Your task to perform on an android device: toggle sleep mode Image 0: 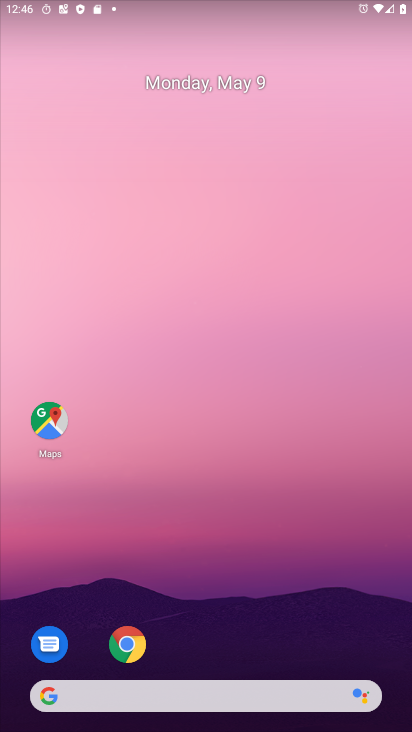
Step 0: drag from (339, 602) to (230, 161)
Your task to perform on an android device: toggle sleep mode Image 1: 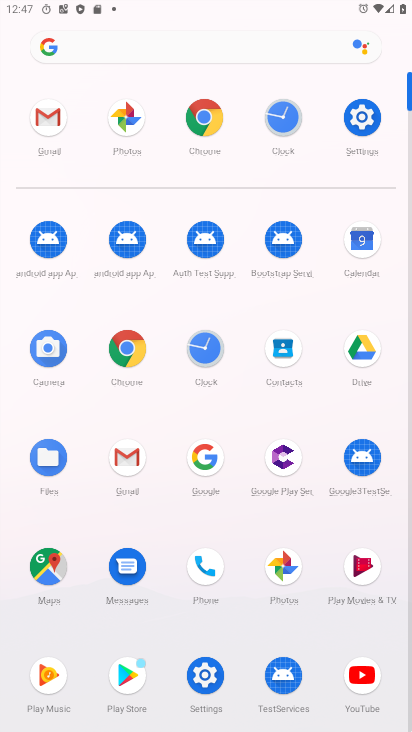
Step 1: click (354, 124)
Your task to perform on an android device: toggle sleep mode Image 2: 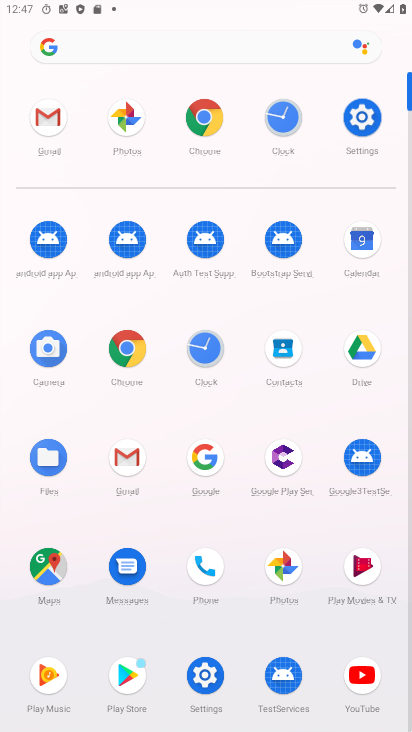
Step 2: click (355, 124)
Your task to perform on an android device: toggle sleep mode Image 3: 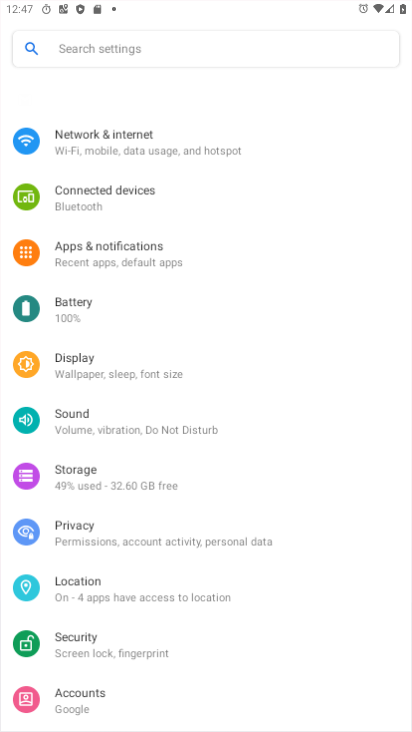
Step 3: click (357, 123)
Your task to perform on an android device: toggle sleep mode Image 4: 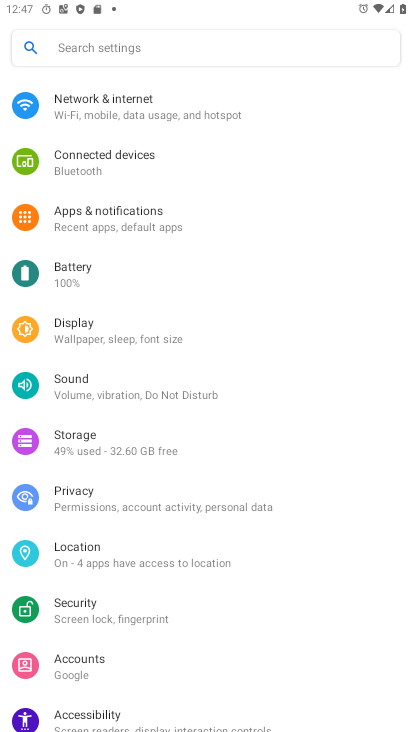
Step 4: click (357, 123)
Your task to perform on an android device: toggle sleep mode Image 5: 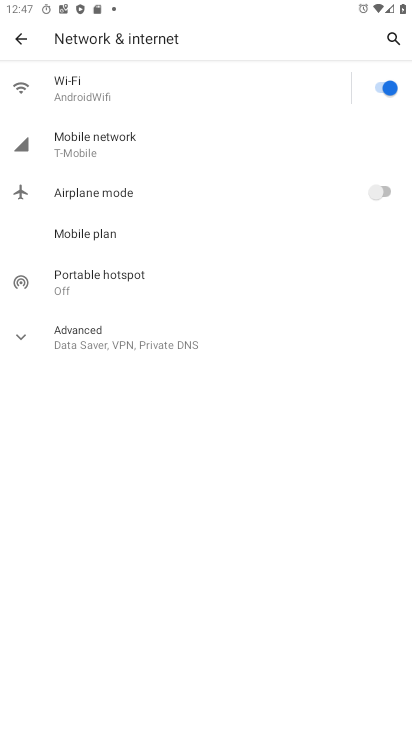
Step 5: click (23, 32)
Your task to perform on an android device: toggle sleep mode Image 6: 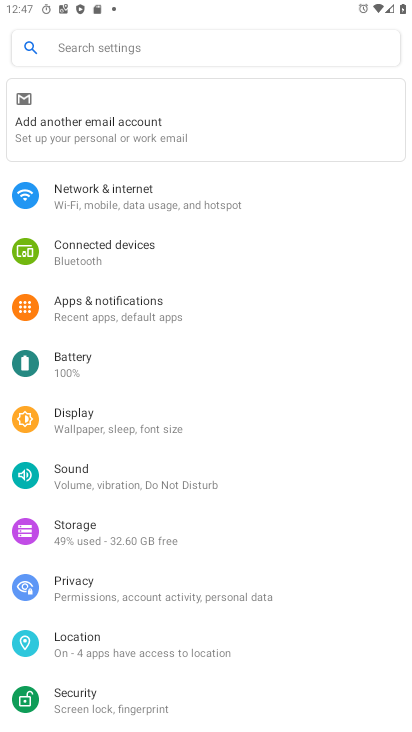
Step 6: drag from (138, 662) to (59, 241)
Your task to perform on an android device: toggle sleep mode Image 7: 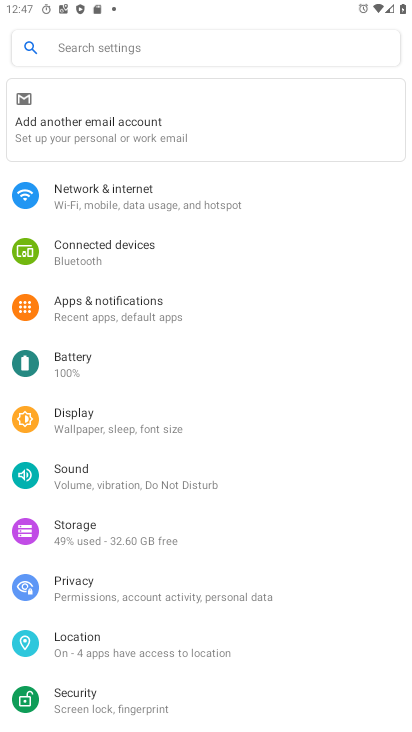
Step 7: click (79, 420)
Your task to perform on an android device: toggle sleep mode Image 8: 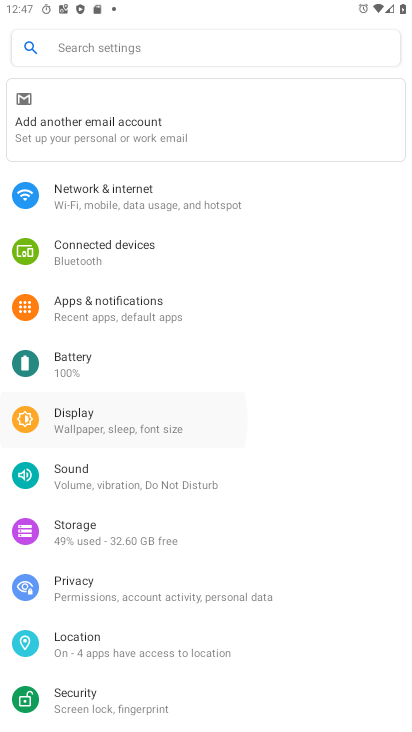
Step 8: click (79, 420)
Your task to perform on an android device: toggle sleep mode Image 9: 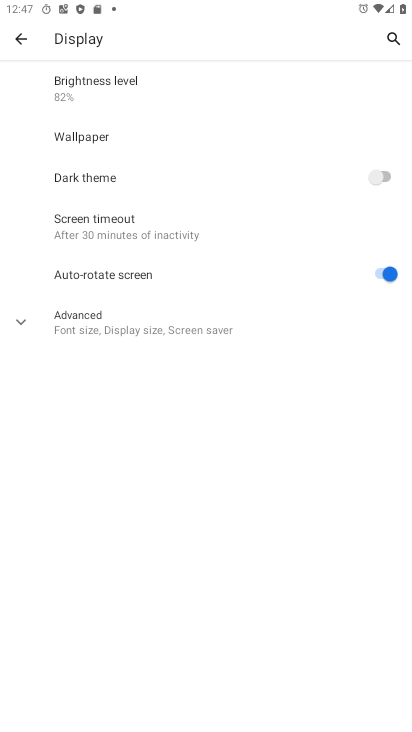
Step 9: click (46, 235)
Your task to perform on an android device: toggle sleep mode Image 10: 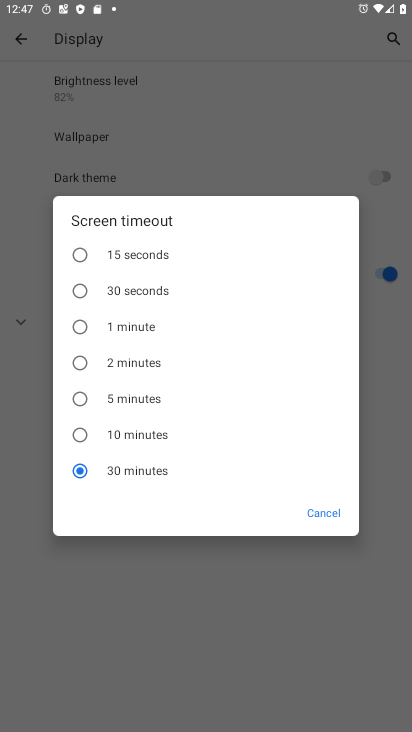
Step 10: click (83, 226)
Your task to perform on an android device: toggle sleep mode Image 11: 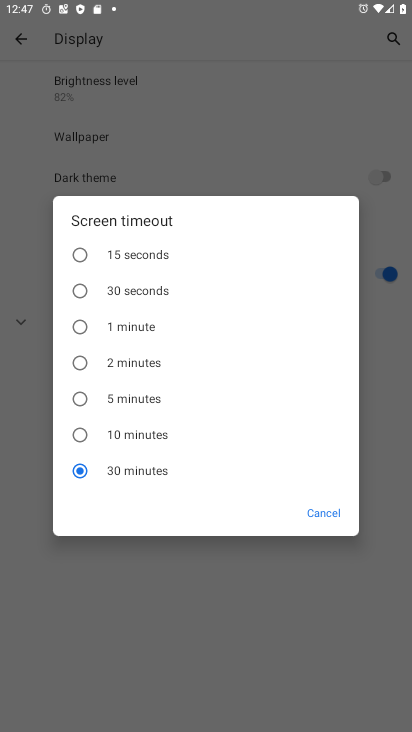
Step 11: click (80, 394)
Your task to perform on an android device: toggle sleep mode Image 12: 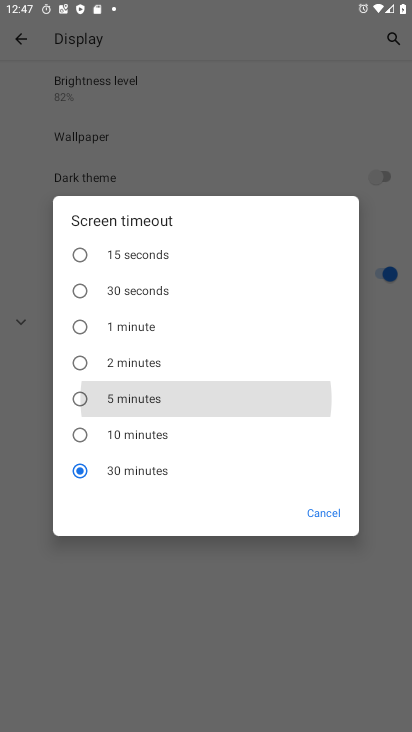
Step 12: click (80, 394)
Your task to perform on an android device: toggle sleep mode Image 13: 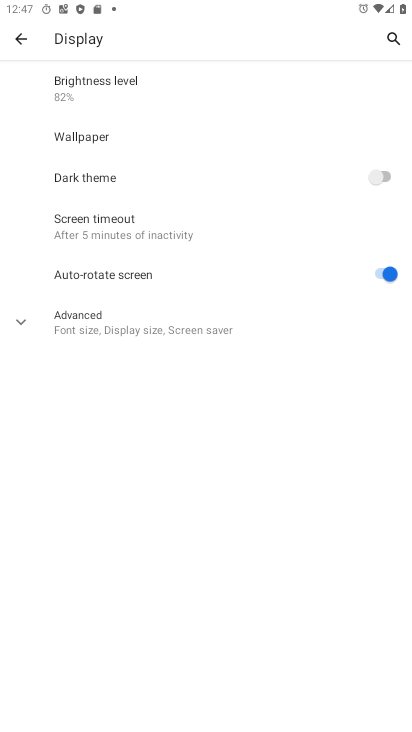
Step 13: click (78, 395)
Your task to perform on an android device: toggle sleep mode Image 14: 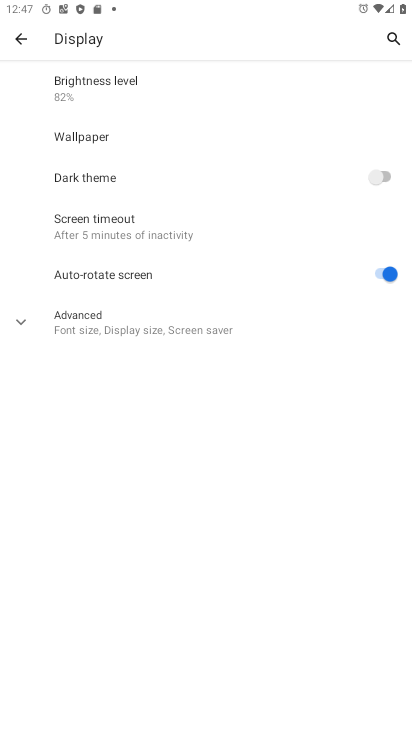
Step 14: task complete